Your task to perform on an android device: see creations saved in the google photos Image 0: 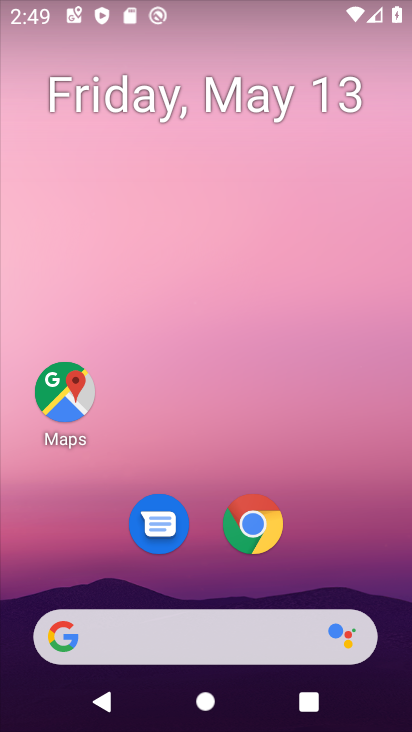
Step 0: drag from (360, 545) to (290, 70)
Your task to perform on an android device: see creations saved in the google photos Image 1: 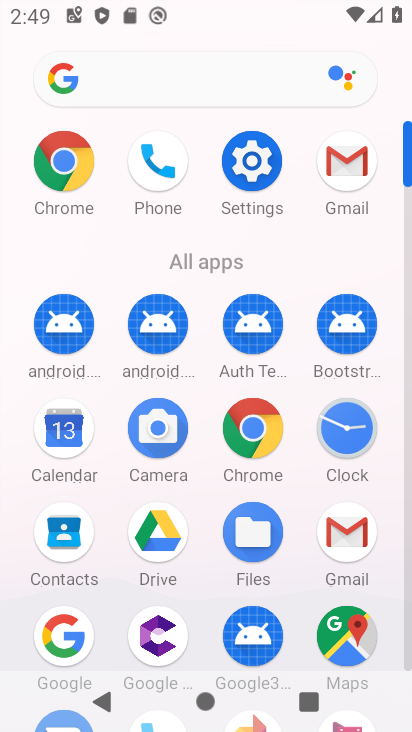
Step 1: drag from (286, 490) to (297, 157)
Your task to perform on an android device: see creations saved in the google photos Image 2: 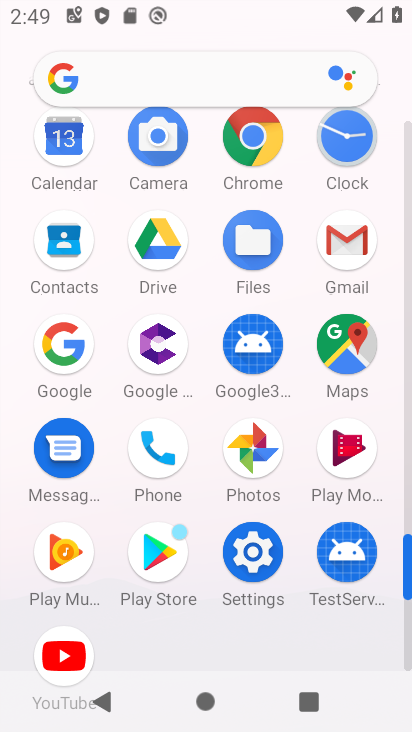
Step 2: click (254, 437)
Your task to perform on an android device: see creations saved in the google photos Image 3: 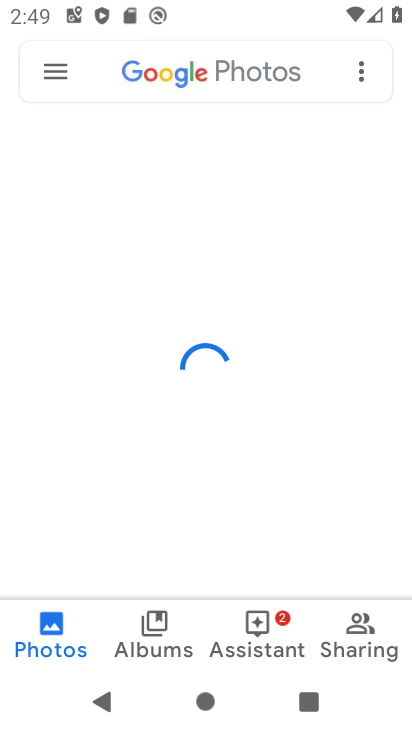
Step 3: click (235, 66)
Your task to perform on an android device: see creations saved in the google photos Image 4: 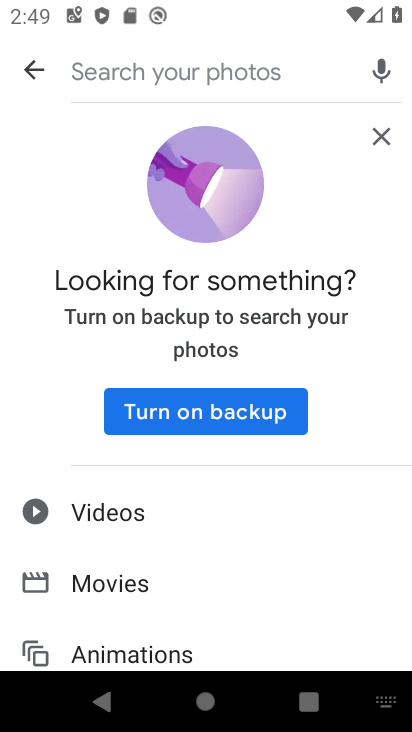
Step 4: drag from (194, 617) to (253, 226)
Your task to perform on an android device: see creations saved in the google photos Image 5: 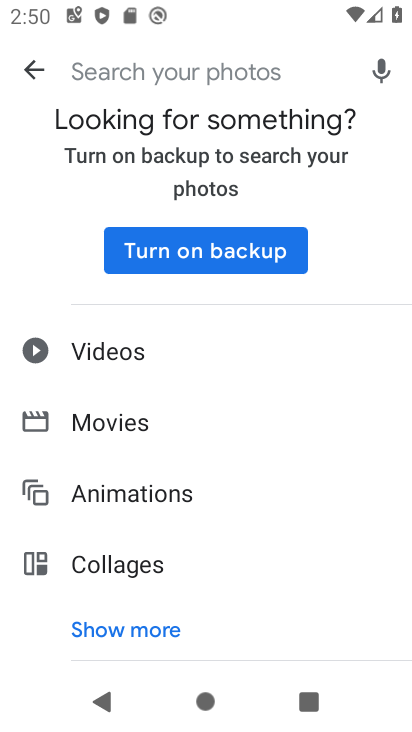
Step 5: click (141, 622)
Your task to perform on an android device: see creations saved in the google photos Image 6: 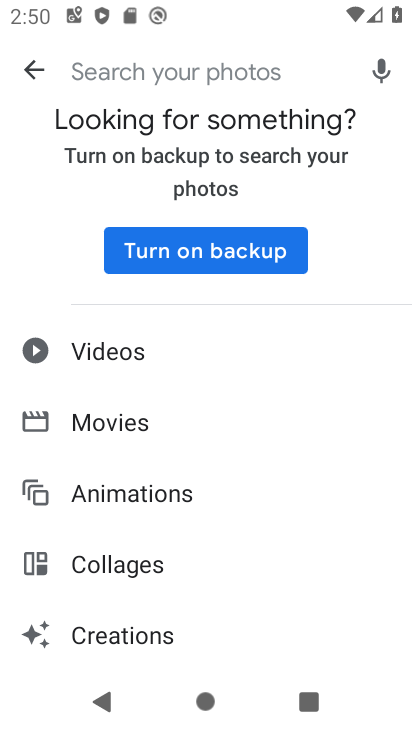
Step 6: drag from (254, 521) to (283, 241)
Your task to perform on an android device: see creations saved in the google photos Image 7: 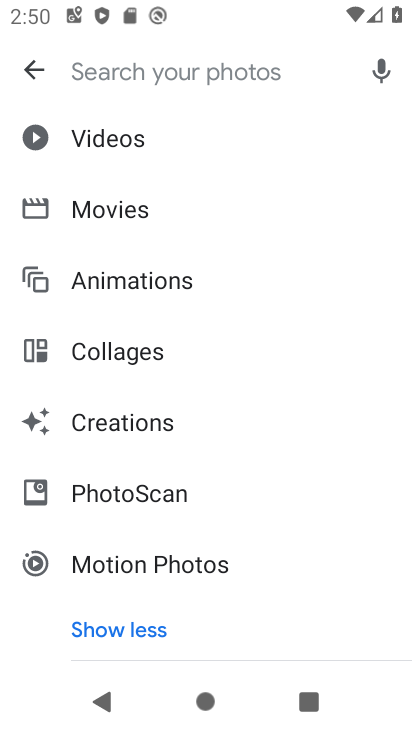
Step 7: click (124, 420)
Your task to perform on an android device: see creations saved in the google photos Image 8: 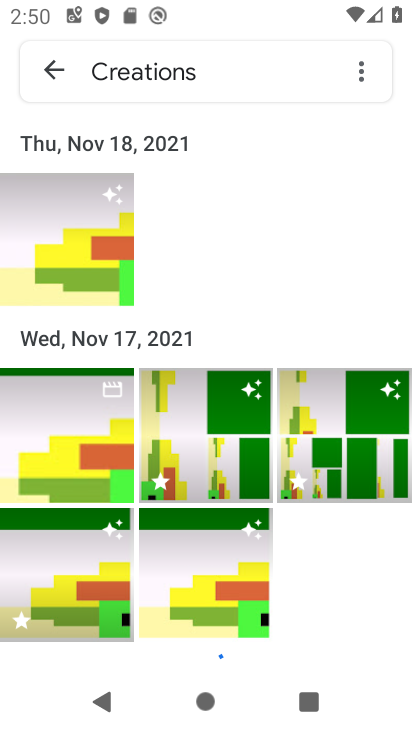
Step 8: task complete